Your task to perform on an android device: turn off wifi Image 0: 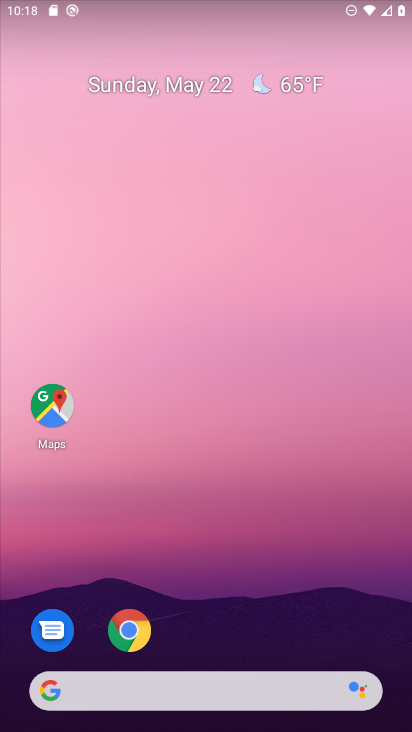
Step 0: press home button
Your task to perform on an android device: turn off wifi Image 1: 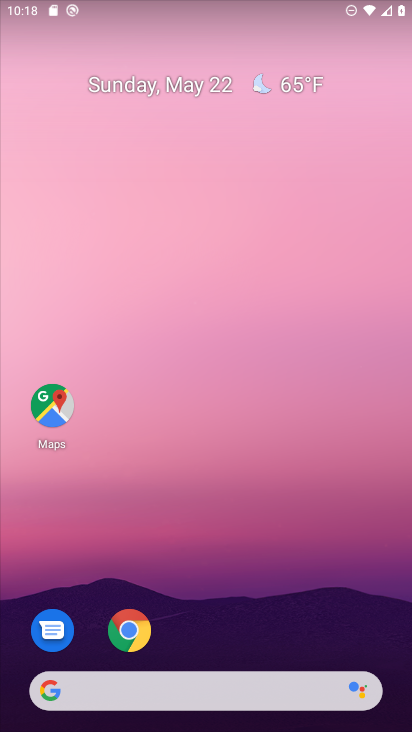
Step 1: drag from (198, 603) to (335, 57)
Your task to perform on an android device: turn off wifi Image 2: 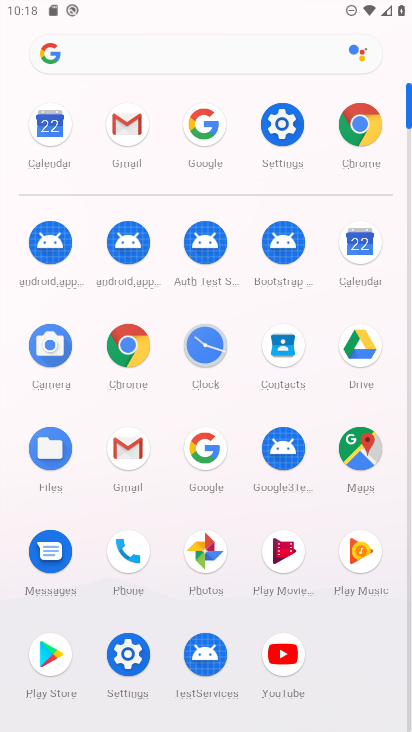
Step 2: click (285, 135)
Your task to perform on an android device: turn off wifi Image 3: 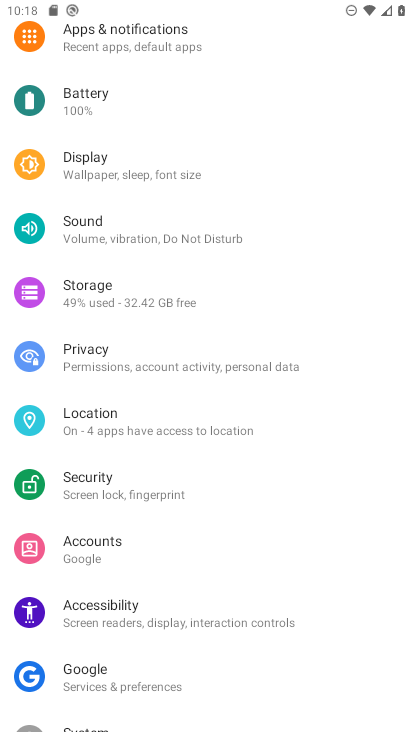
Step 3: drag from (318, 113) to (258, 519)
Your task to perform on an android device: turn off wifi Image 4: 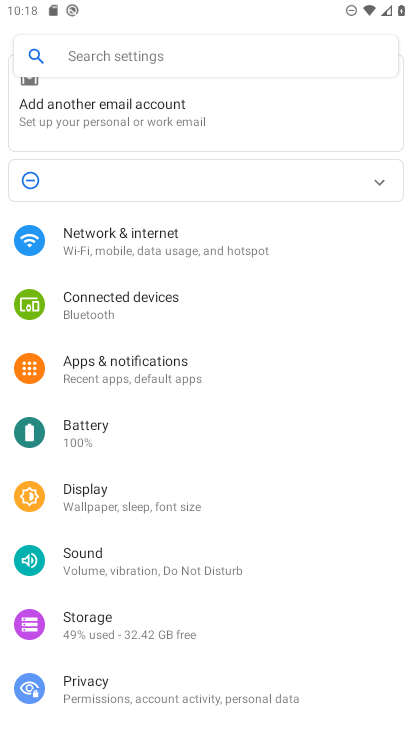
Step 4: click (162, 253)
Your task to perform on an android device: turn off wifi Image 5: 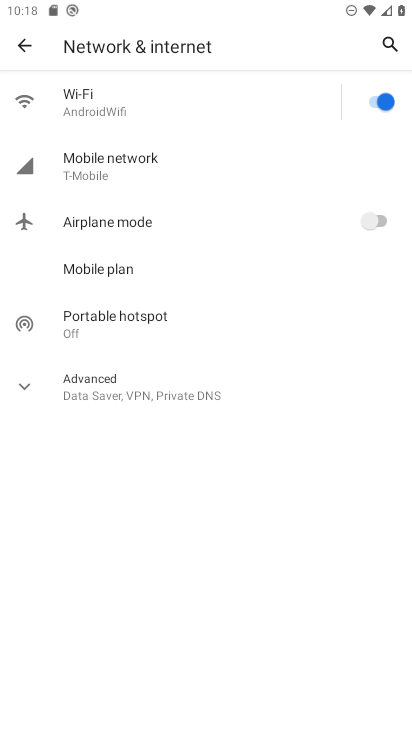
Step 5: click (370, 106)
Your task to perform on an android device: turn off wifi Image 6: 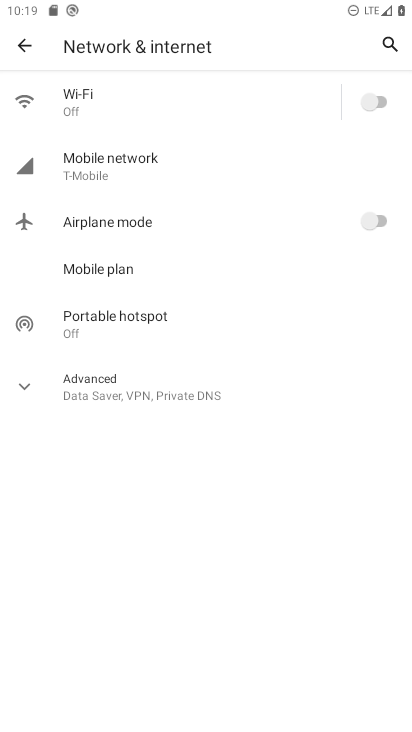
Step 6: task complete